Your task to perform on an android device: add a contact in the contacts app Image 0: 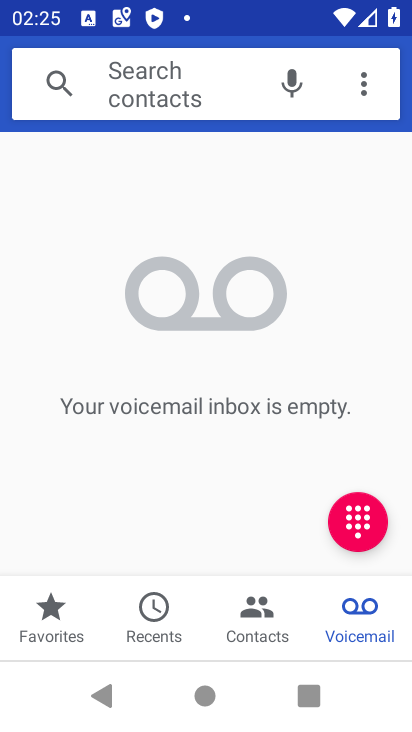
Step 0: press home button
Your task to perform on an android device: add a contact in the contacts app Image 1: 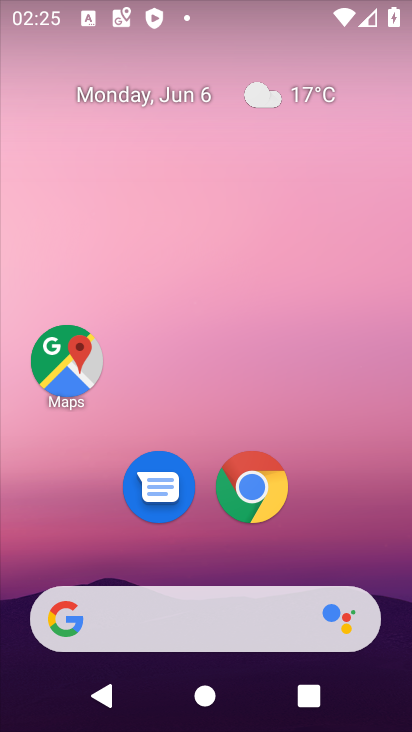
Step 1: drag from (395, 613) to (369, 36)
Your task to perform on an android device: add a contact in the contacts app Image 2: 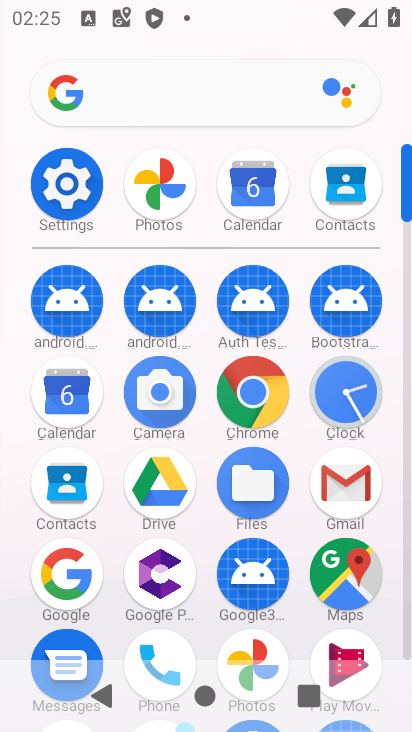
Step 2: click (57, 482)
Your task to perform on an android device: add a contact in the contacts app Image 3: 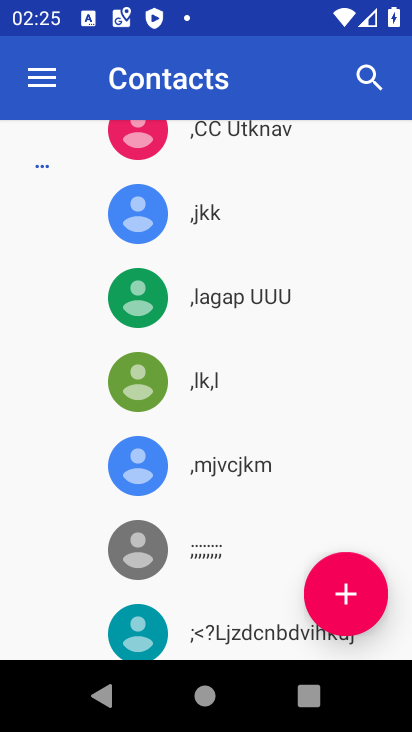
Step 3: click (340, 595)
Your task to perform on an android device: add a contact in the contacts app Image 4: 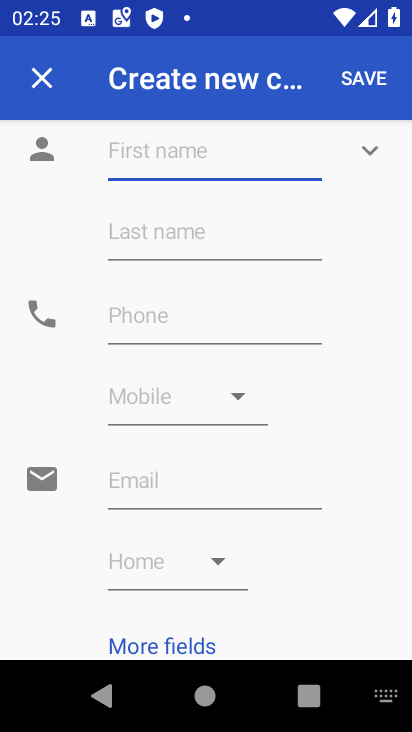
Step 4: type "jtytrtreere"
Your task to perform on an android device: add a contact in the contacts app Image 5: 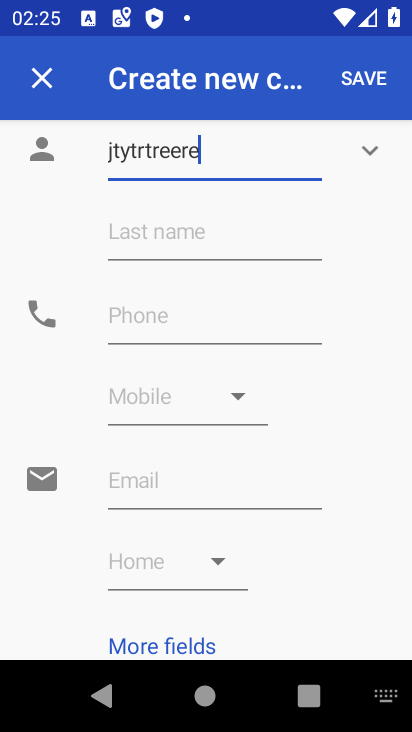
Step 5: click (168, 319)
Your task to perform on an android device: add a contact in the contacts app Image 6: 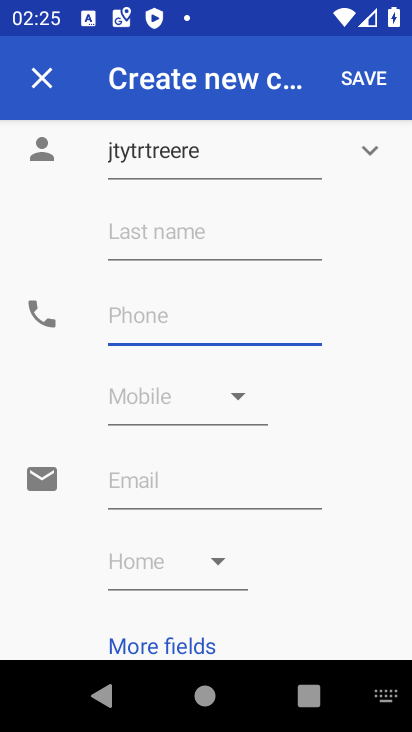
Step 6: type "0987654444456"
Your task to perform on an android device: add a contact in the contacts app Image 7: 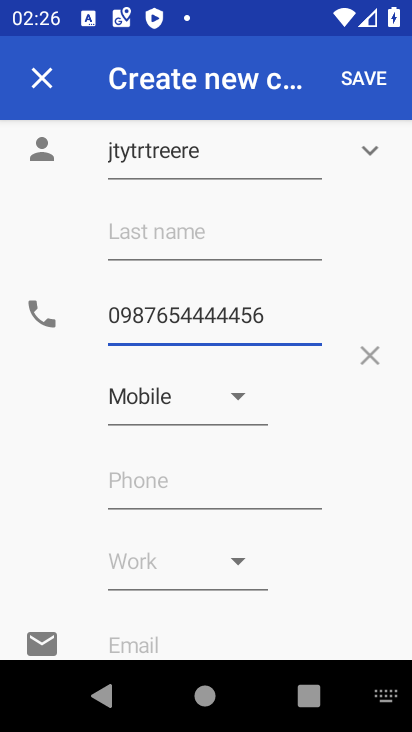
Step 7: click (246, 402)
Your task to perform on an android device: add a contact in the contacts app Image 8: 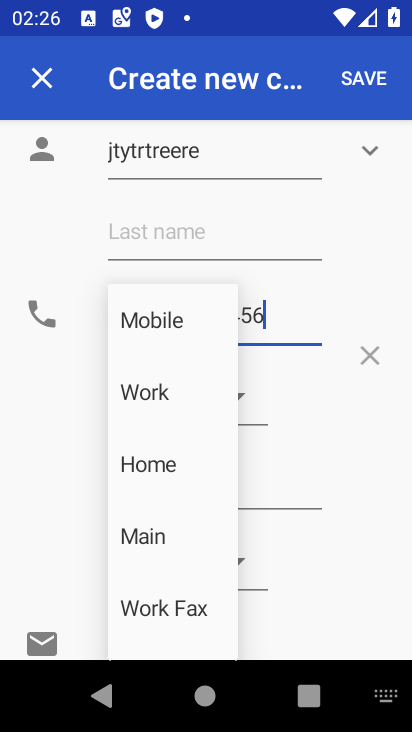
Step 8: click (157, 397)
Your task to perform on an android device: add a contact in the contacts app Image 9: 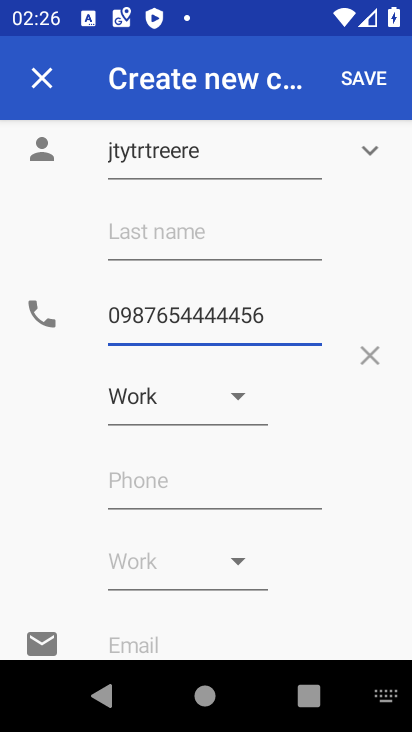
Step 9: click (369, 80)
Your task to perform on an android device: add a contact in the contacts app Image 10: 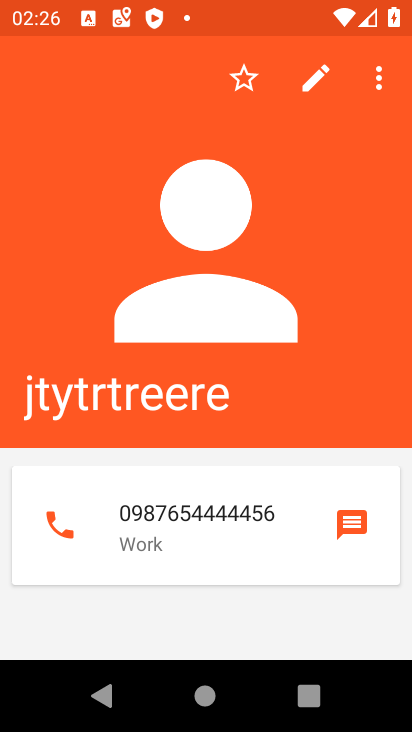
Step 10: task complete